Your task to perform on an android device: Open Yahoo.com Image 0: 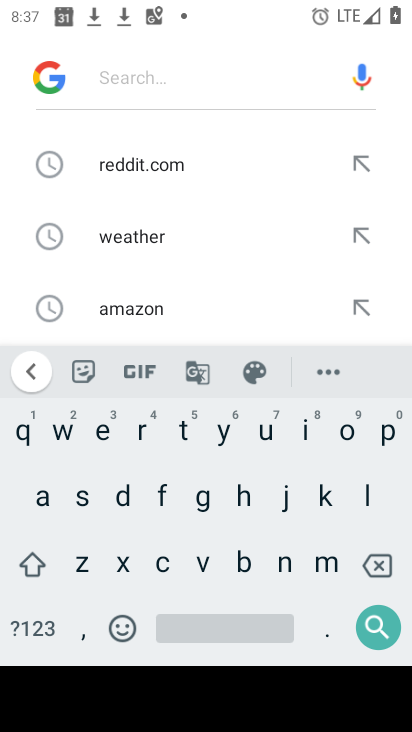
Step 0: press home button
Your task to perform on an android device: Open Yahoo.com Image 1: 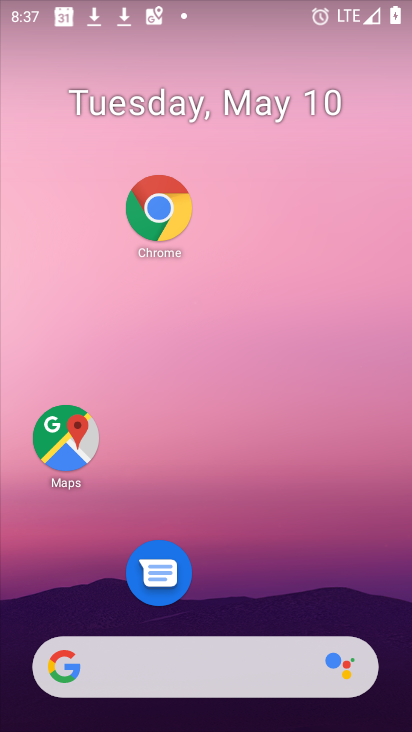
Step 1: drag from (284, 700) to (368, 219)
Your task to perform on an android device: Open Yahoo.com Image 2: 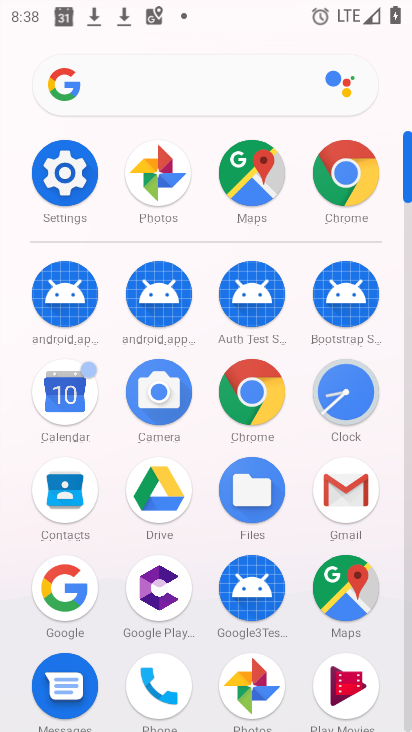
Step 2: click (348, 189)
Your task to perform on an android device: Open Yahoo.com Image 3: 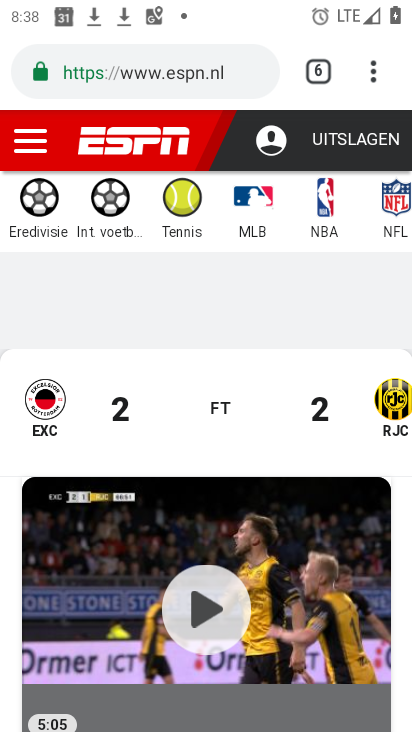
Step 3: click (316, 76)
Your task to perform on an android device: Open Yahoo.com Image 4: 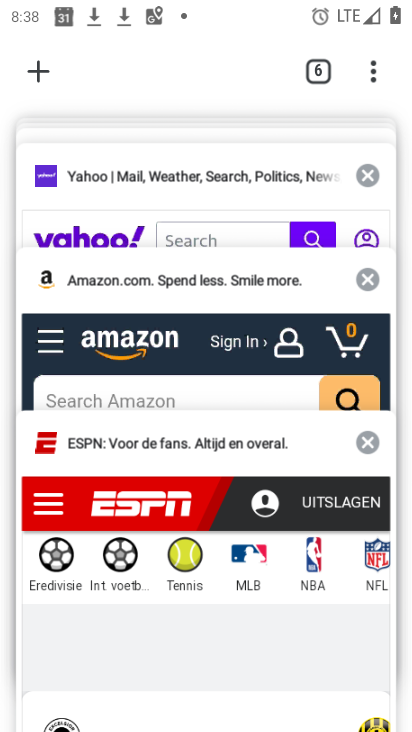
Step 4: click (32, 86)
Your task to perform on an android device: Open Yahoo.com Image 5: 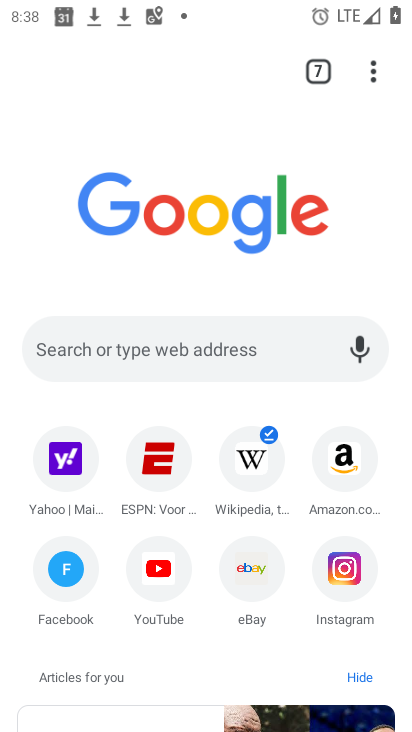
Step 5: click (61, 457)
Your task to perform on an android device: Open Yahoo.com Image 6: 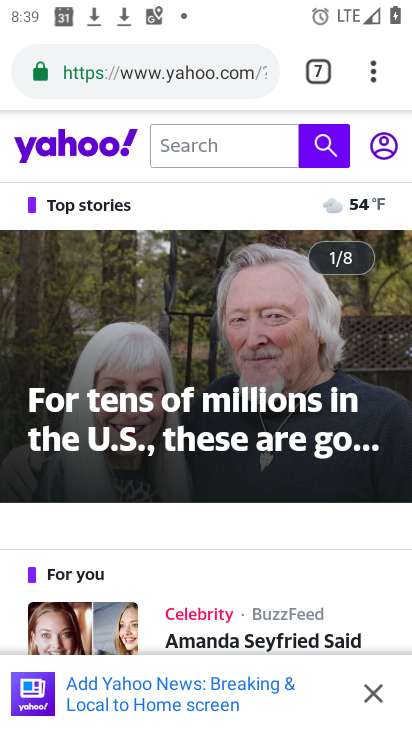
Step 6: task complete